Your task to perform on an android device: turn on priority inbox in the gmail app Image 0: 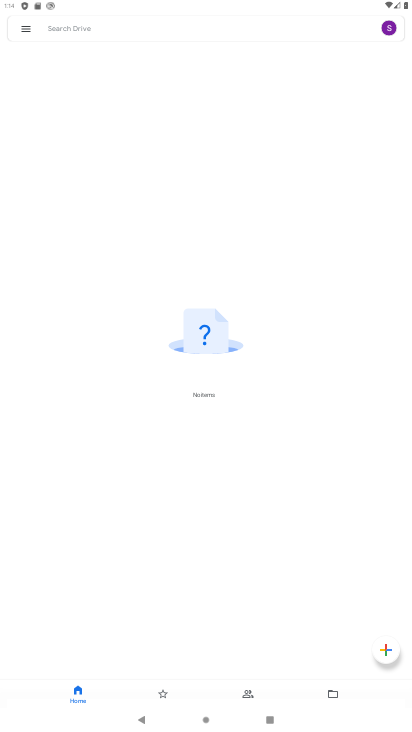
Step 0: press home button
Your task to perform on an android device: turn on priority inbox in the gmail app Image 1: 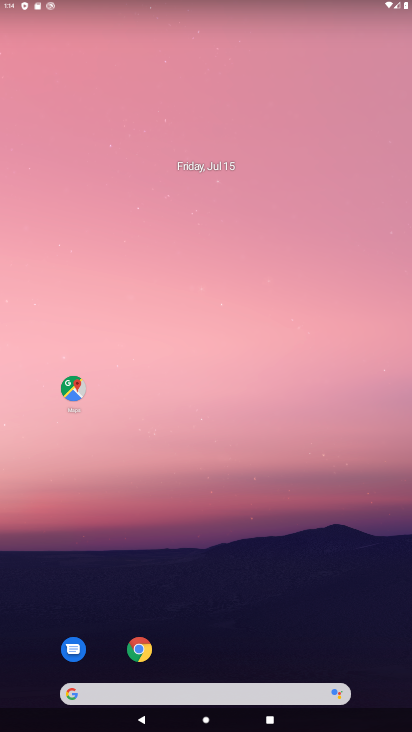
Step 1: drag from (177, 616) to (176, 112)
Your task to perform on an android device: turn on priority inbox in the gmail app Image 2: 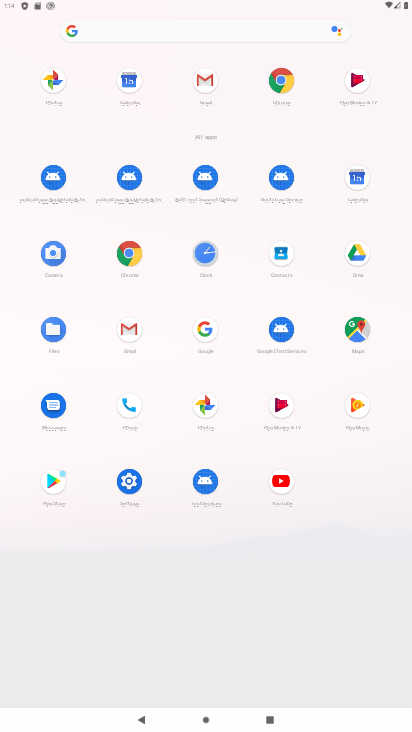
Step 2: click (118, 325)
Your task to perform on an android device: turn on priority inbox in the gmail app Image 3: 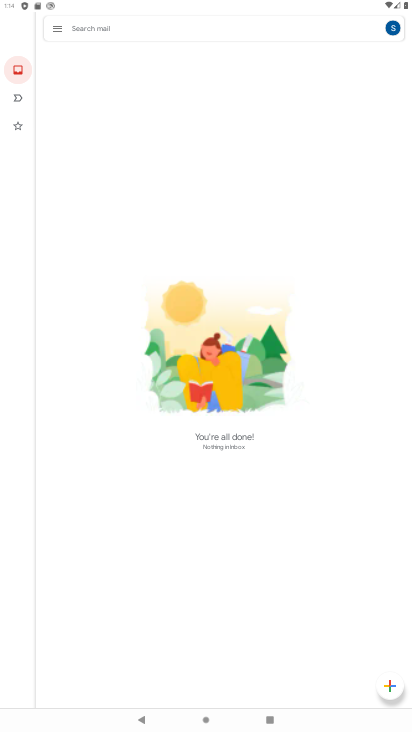
Step 3: click (59, 26)
Your task to perform on an android device: turn on priority inbox in the gmail app Image 4: 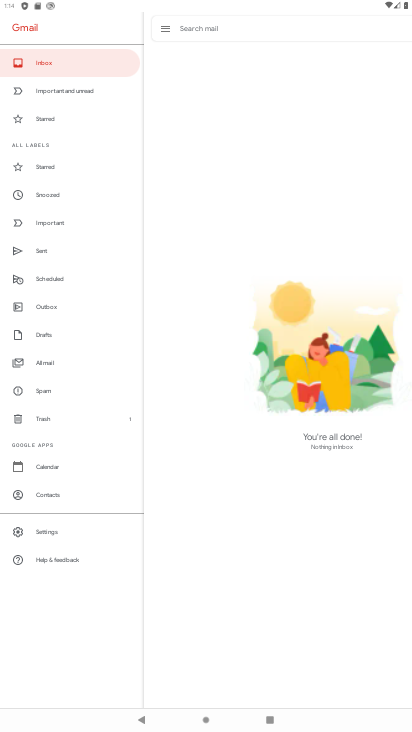
Step 4: click (66, 531)
Your task to perform on an android device: turn on priority inbox in the gmail app Image 5: 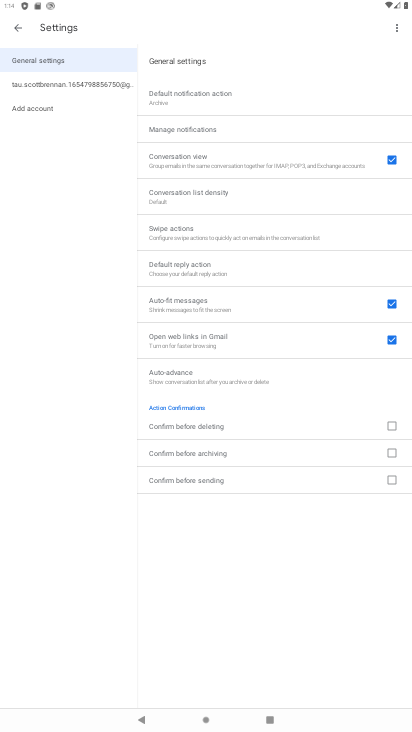
Step 5: click (116, 86)
Your task to perform on an android device: turn on priority inbox in the gmail app Image 6: 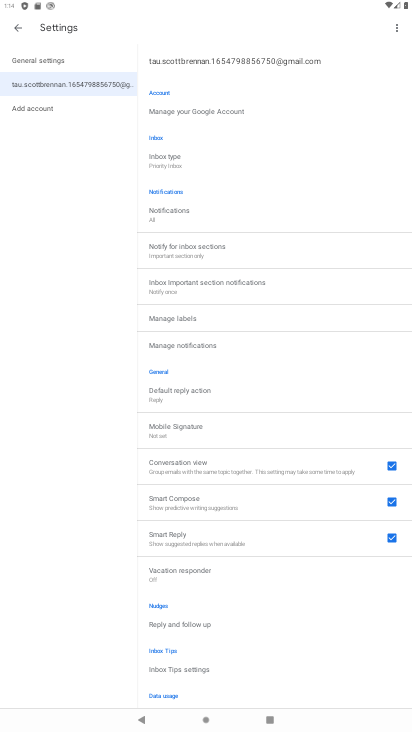
Step 6: click (175, 165)
Your task to perform on an android device: turn on priority inbox in the gmail app Image 7: 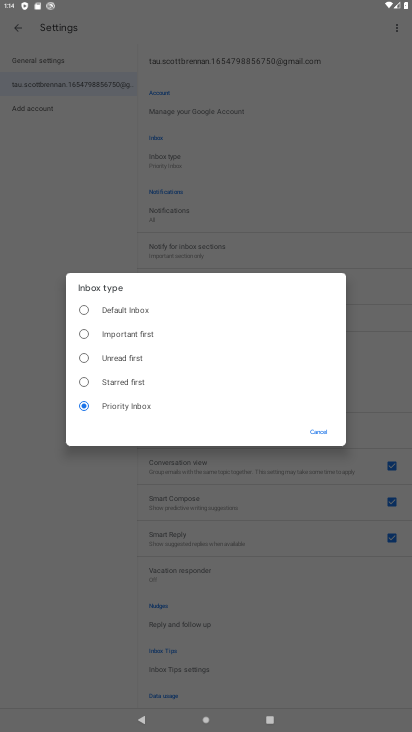
Step 7: task complete